Your task to perform on an android device: Open CNN.com Image 0: 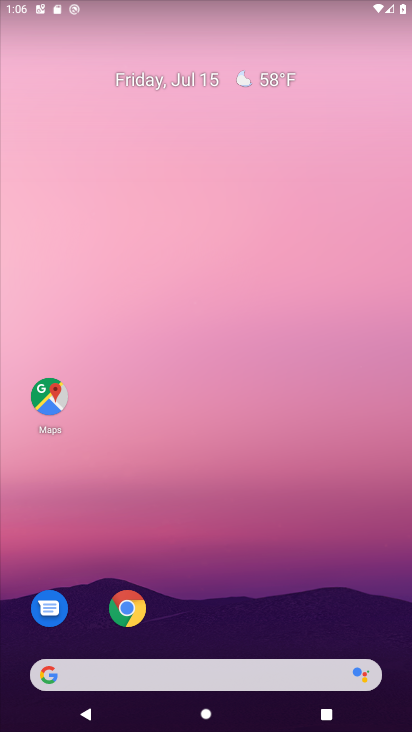
Step 0: click (135, 614)
Your task to perform on an android device: Open CNN.com Image 1: 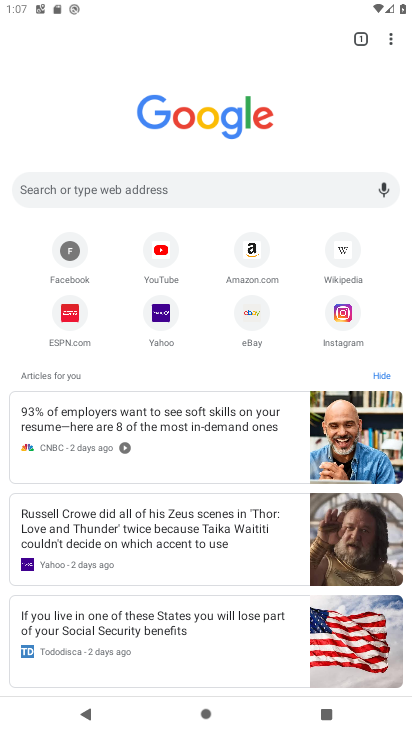
Step 1: click (147, 200)
Your task to perform on an android device: Open CNN.com Image 2: 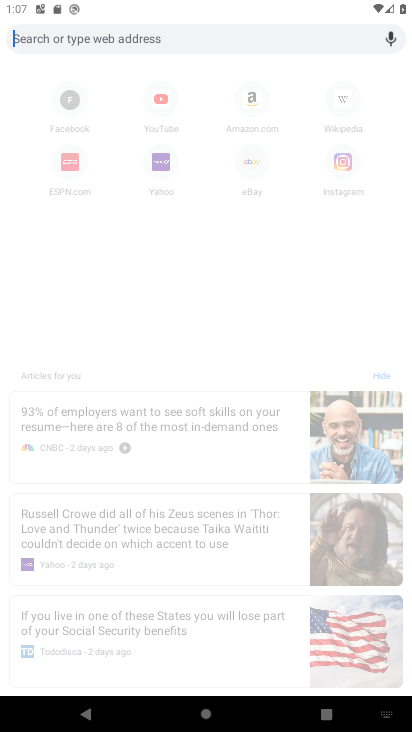
Step 2: type "CNN.com"
Your task to perform on an android device: Open CNN.com Image 3: 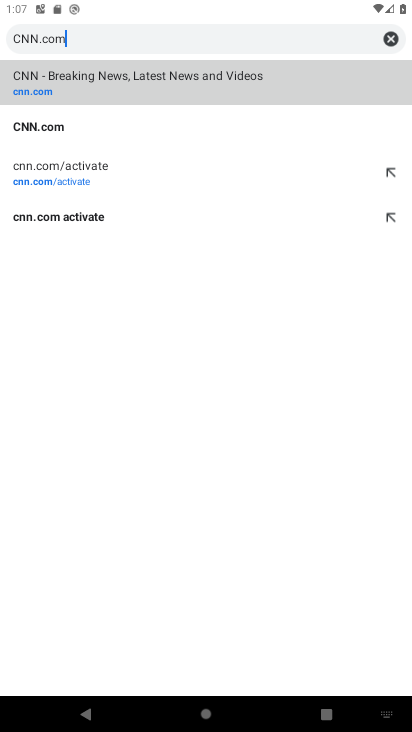
Step 3: click (136, 107)
Your task to perform on an android device: Open CNN.com Image 4: 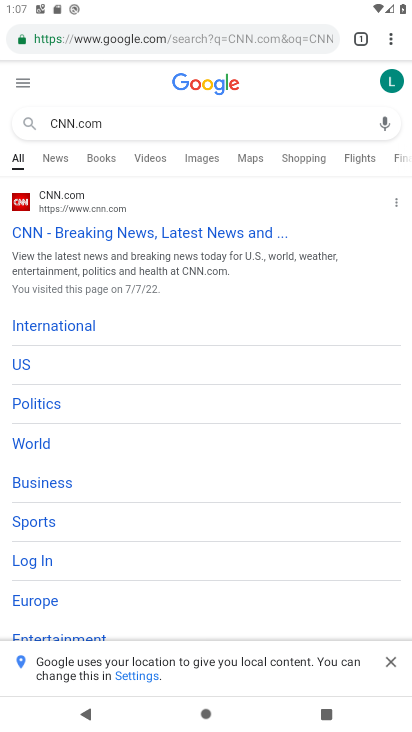
Step 4: click (126, 237)
Your task to perform on an android device: Open CNN.com Image 5: 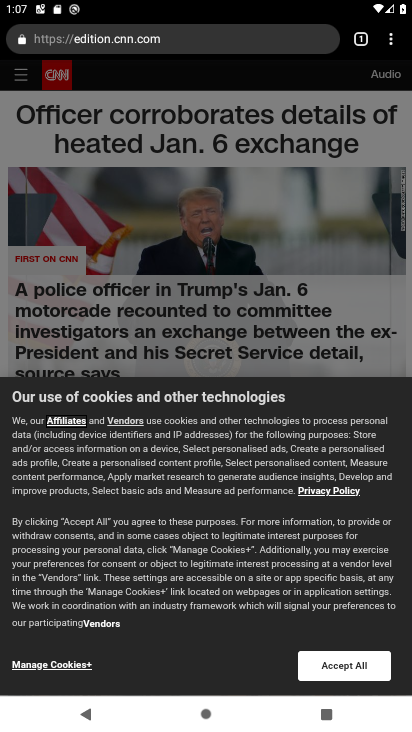
Step 5: click (342, 667)
Your task to perform on an android device: Open CNN.com Image 6: 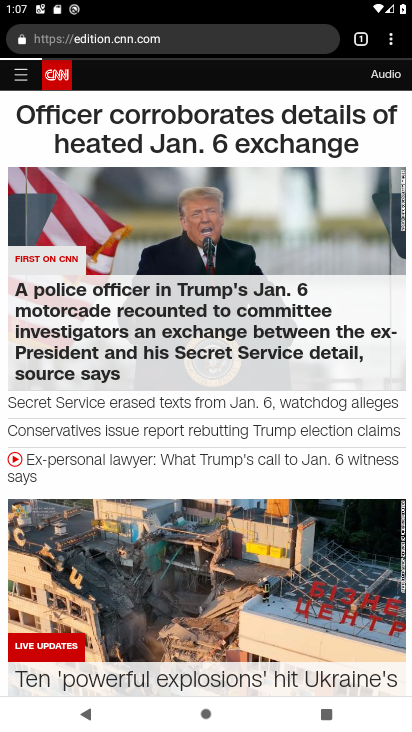
Step 6: task complete